Your task to perform on an android device: turn on location history Image 0: 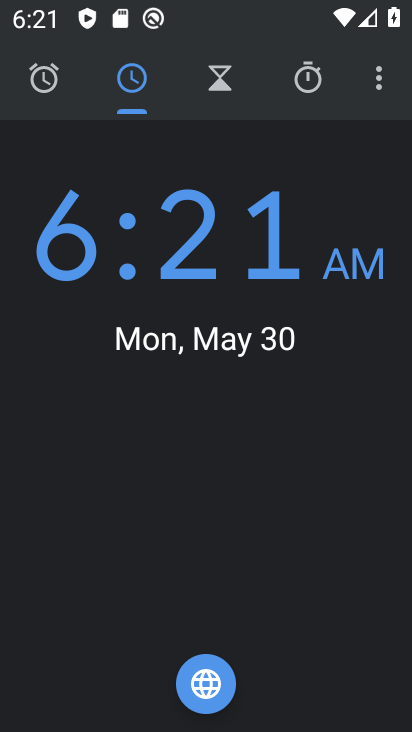
Step 0: press home button
Your task to perform on an android device: turn on location history Image 1: 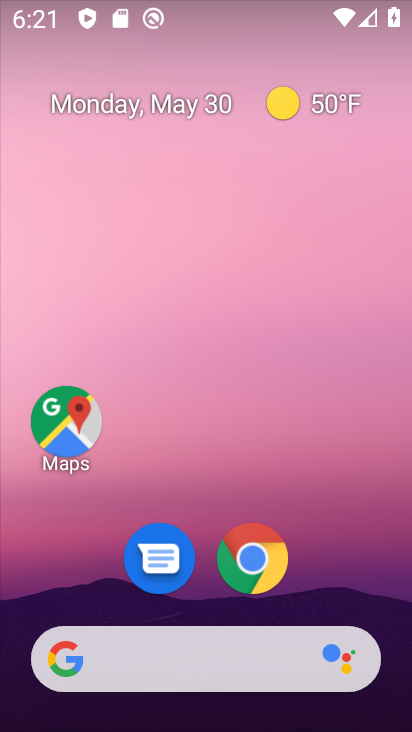
Step 1: drag from (300, 486) to (312, 54)
Your task to perform on an android device: turn on location history Image 2: 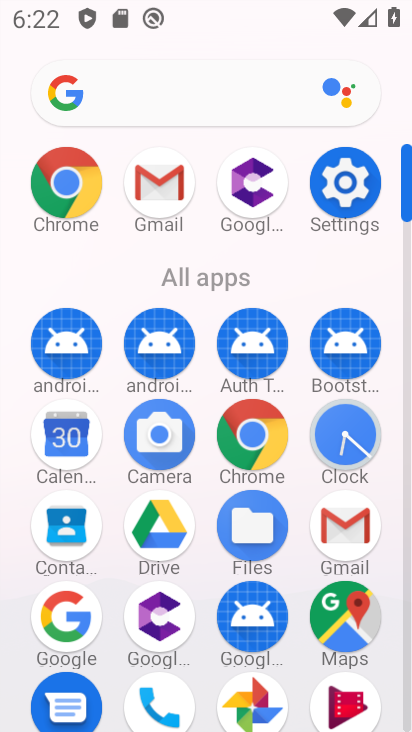
Step 2: click (341, 181)
Your task to perform on an android device: turn on location history Image 3: 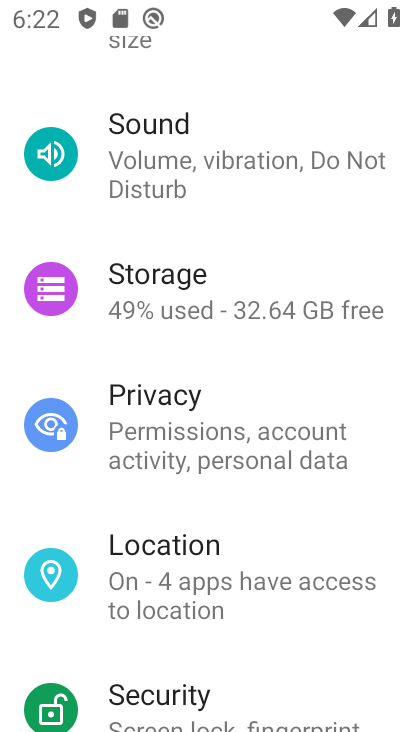
Step 3: drag from (224, 597) to (213, 334)
Your task to perform on an android device: turn on location history Image 4: 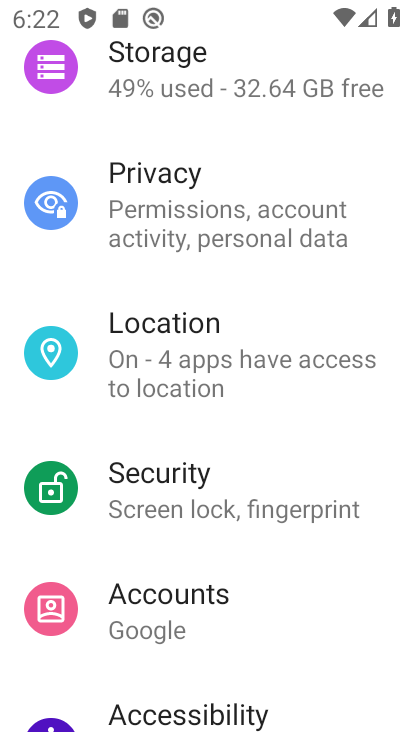
Step 4: press home button
Your task to perform on an android device: turn on location history Image 5: 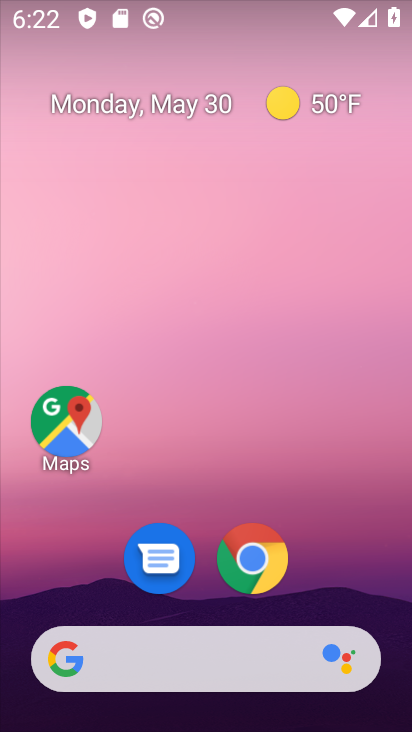
Step 5: drag from (324, 535) to (261, 126)
Your task to perform on an android device: turn on location history Image 6: 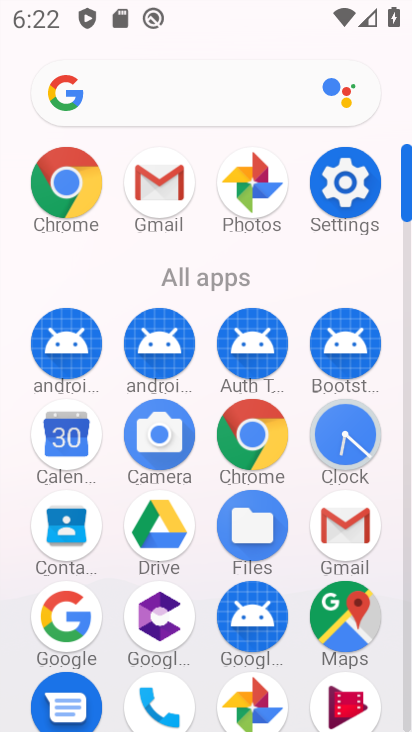
Step 6: drag from (184, 284) to (188, 0)
Your task to perform on an android device: turn on location history Image 7: 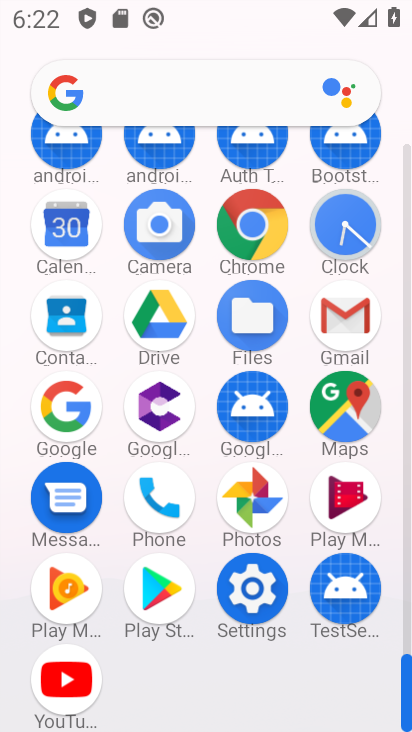
Step 7: click (338, 402)
Your task to perform on an android device: turn on location history Image 8: 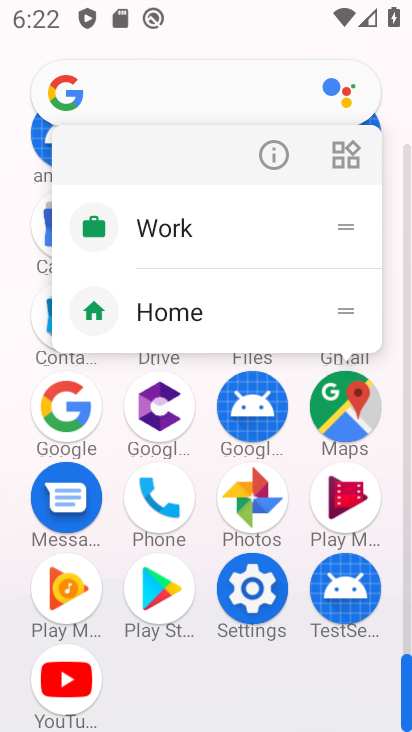
Step 8: click (238, 31)
Your task to perform on an android device: turn on location history Image 9: 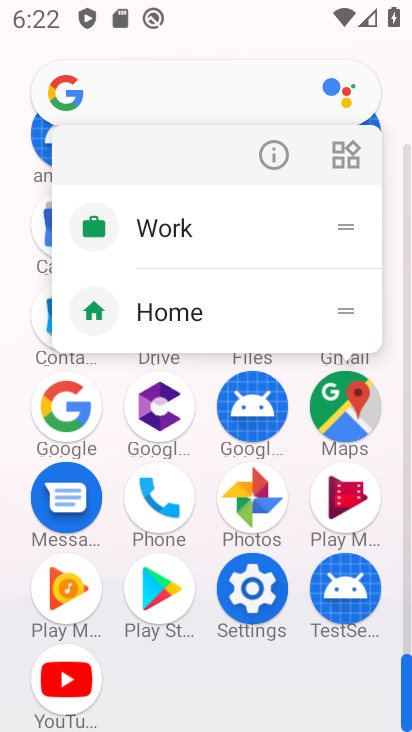
Step 9: click (267, 650)
Your task to perform on an android device: turn on location history Image 10: 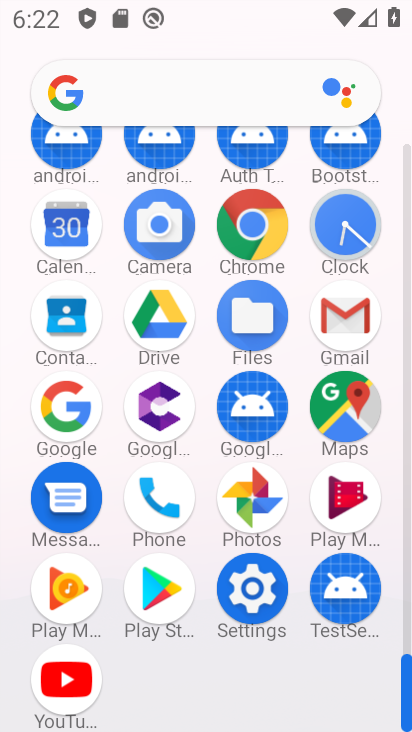
Step 10: click (327, 422)
Your task to perform on an android device: turn on location history Image 11: 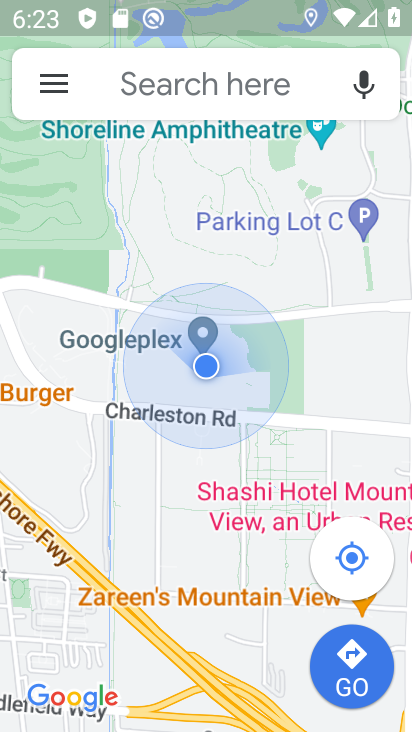
Step 11: drag from (313, 729) to (229, 717)
Your task to perform on an android device: turn on location history Image 12: 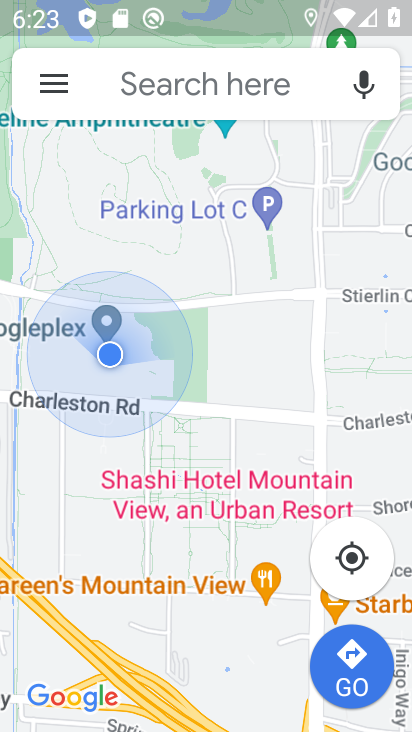
Step 12: click (30, 87)
Your task to perform on an android device: turn on location history Image 13: 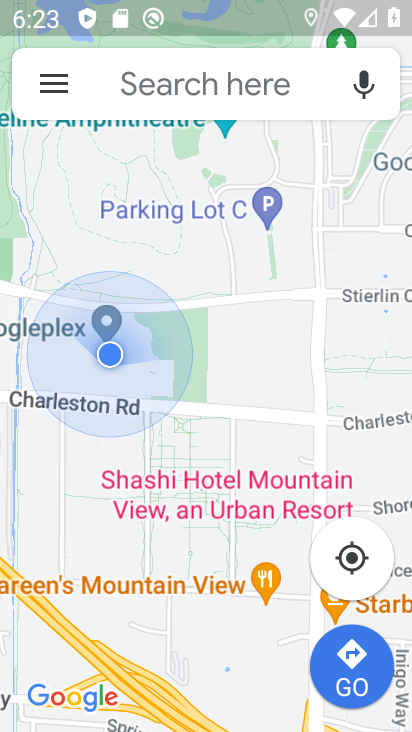
Step 13: click (53, 85)
Your task to perform on an android device: turn on location history Image 14: 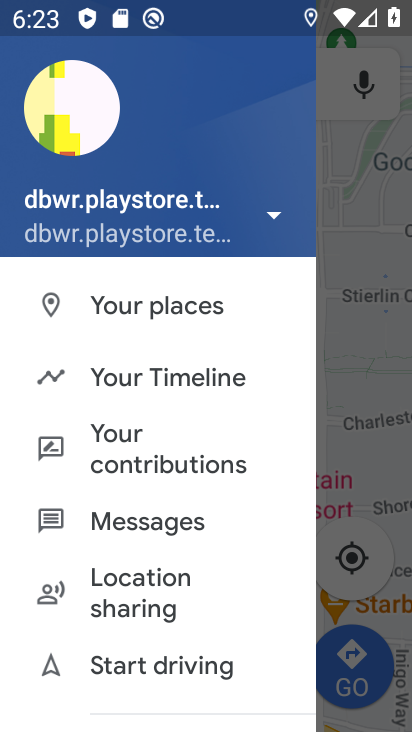
Step 14: click (102, 372)
Your task to perform on an android device: turn on location history Image 15: 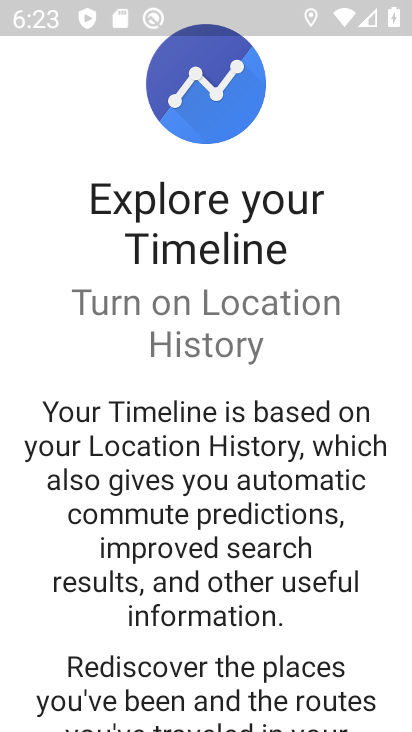
Step 15: drag from (219, 532) to (237, 125)
Your task to perform on an android device: turn on location history Image 16: 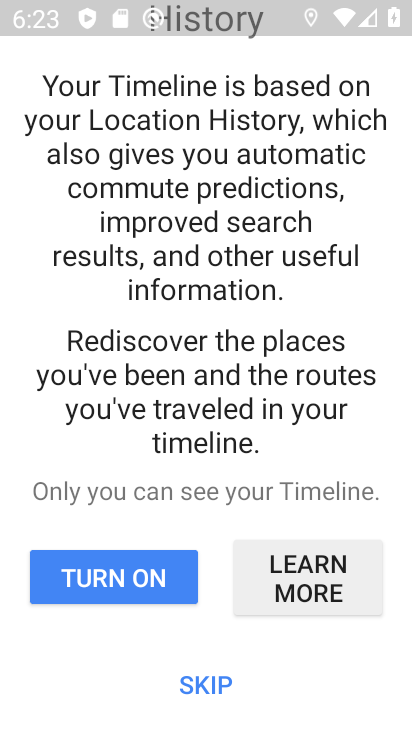
Step 16: click (90, 572)
Your task to perform on an android device: turn on location history Image 17: 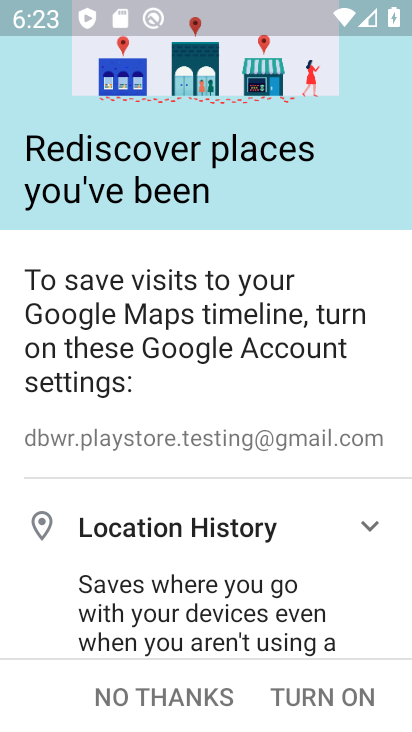
Step 17: drag from (270, 542) to (241, 298)
Your task to perform on an android device: turn on location history Image 18: 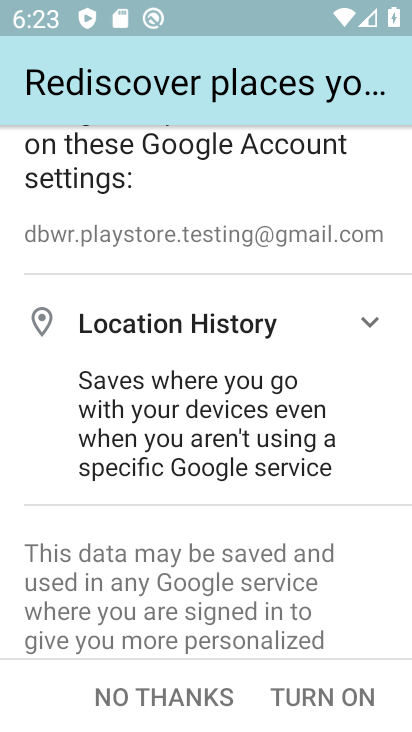
Step 18: click (175, 694)
Your task to perform on an android device: turn on location history Image 19: 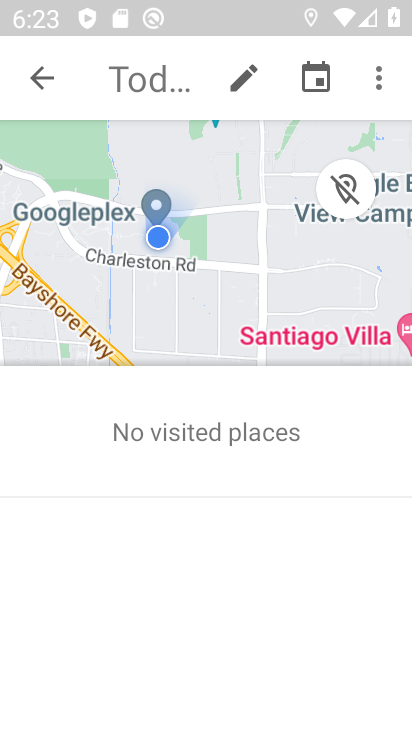
Step 19: click (378, 74)
Your task to perform on an android device: turn on location history Image 20: 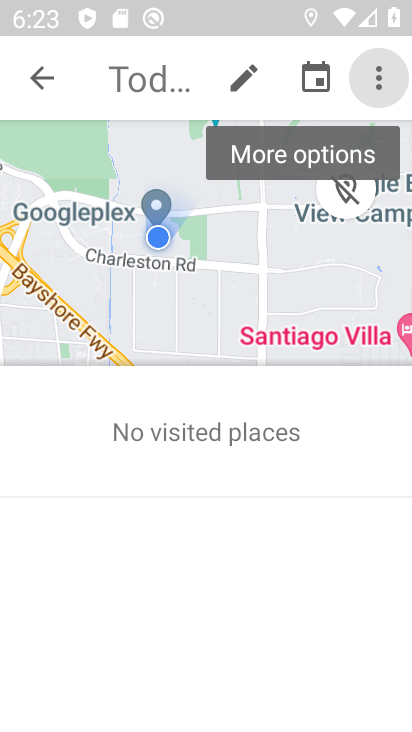
Step 20: click (378, 74)
Your task to perform on an android device: turn on location history Image 21: 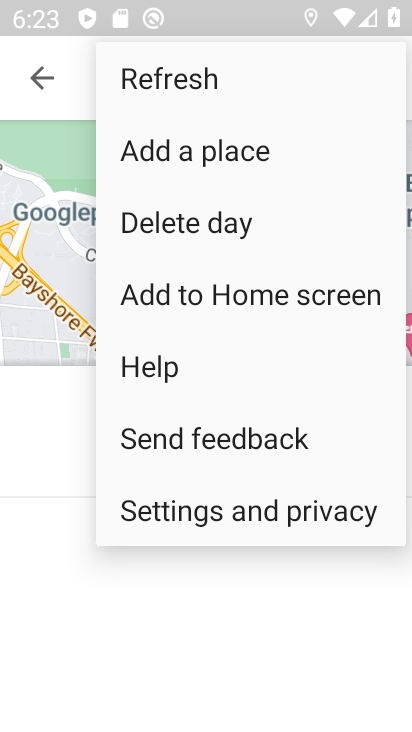
Step 21: click (280, 510)
Your task to perform on an android device: turn on location history Image 22: 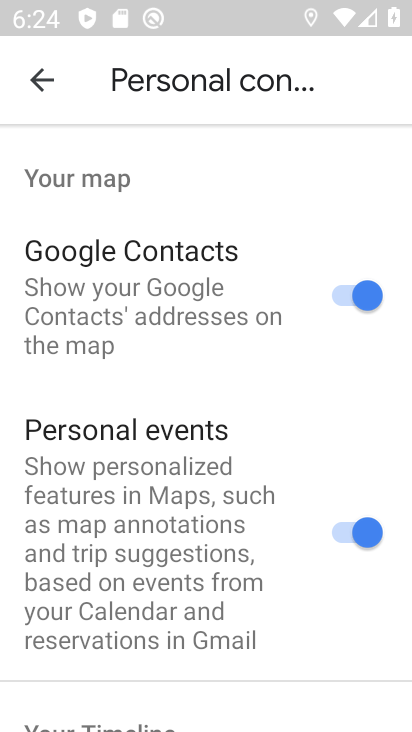
Step 22: drag from (280, 468) to (263, 181)
Your task to perform on an android device: turn on location history Image 23: 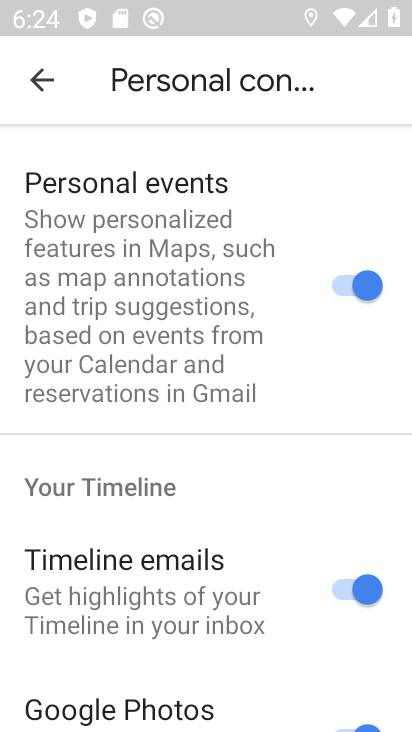
Step 23: drag from (296, 538) to (256, 237)
Your task to perform on an android device: turn on location history Image 24: 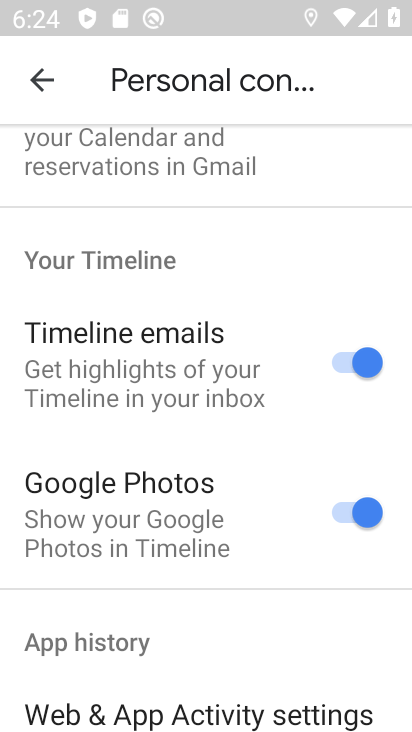
Step 24: drag from (213, 616) to (193, 171)
Your task to perform on an android device: turn on location history Image 25: 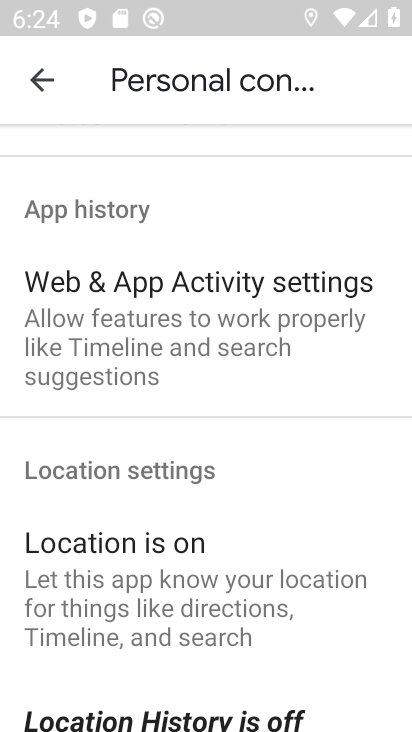
Step 25: drag from (329, 603) to (223, 182)
Your task to perform on an android device: turn on location history Image 26: 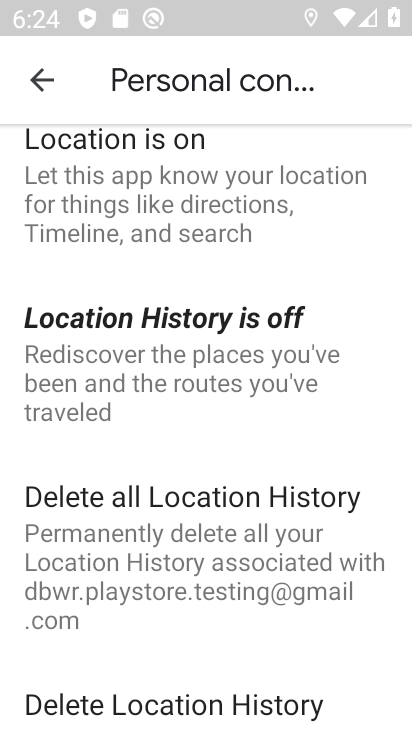
Step 26: click (171, 345)
Your task to perform on an android device: turn on location history Image 27: 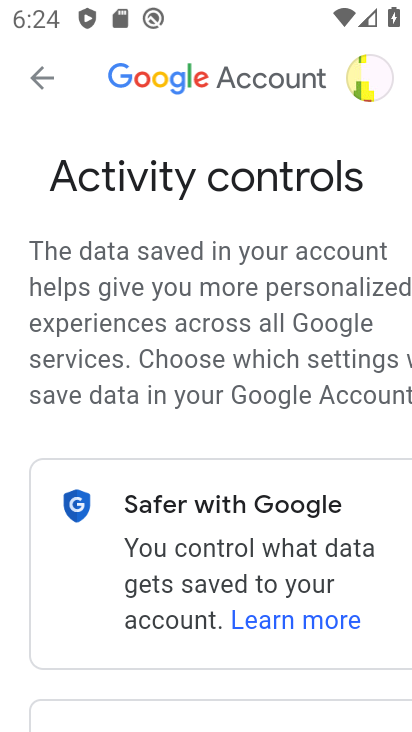
Step 27: drag from (103, 602) to (109, 197)
Your task to perform on an android device: turn on location history Image 28: 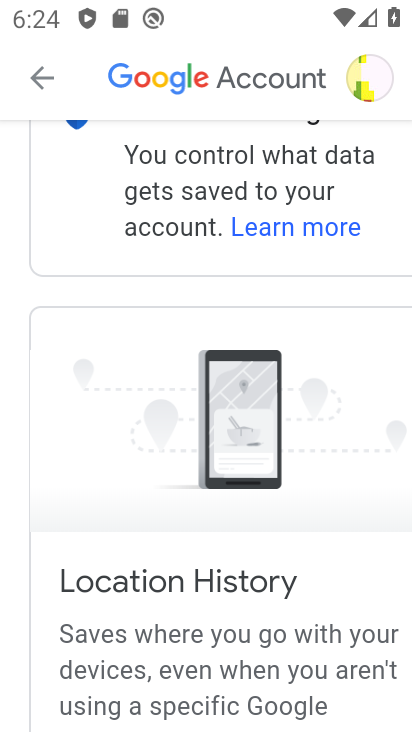
Step 28: drag from (147, 639) to (200, 79)
Your task to perform on an android device: turn on location history Image 29: 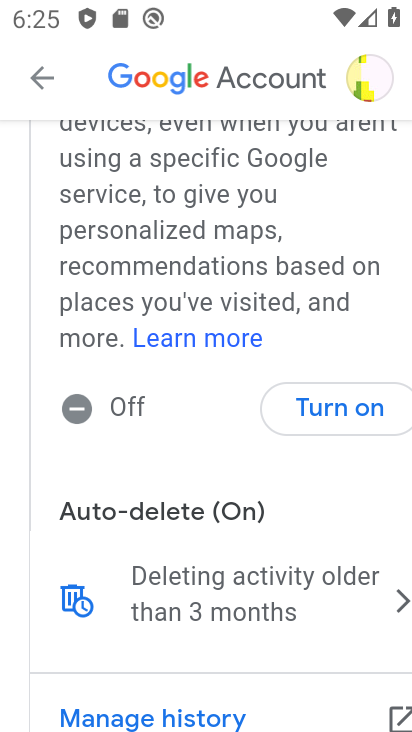
Step 29: click (344, 402)
Your task to perform on an android device: turn on location history Image 30: 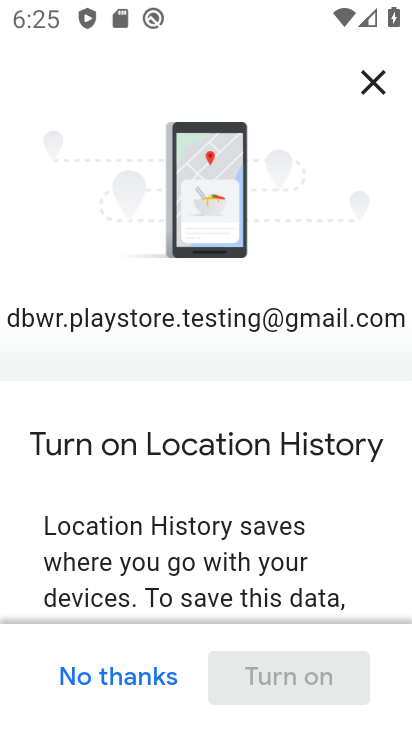
Step 30: drag from (300, 546) to (287, 146)
Your task to perform on an android device: turn on location history Image 31: 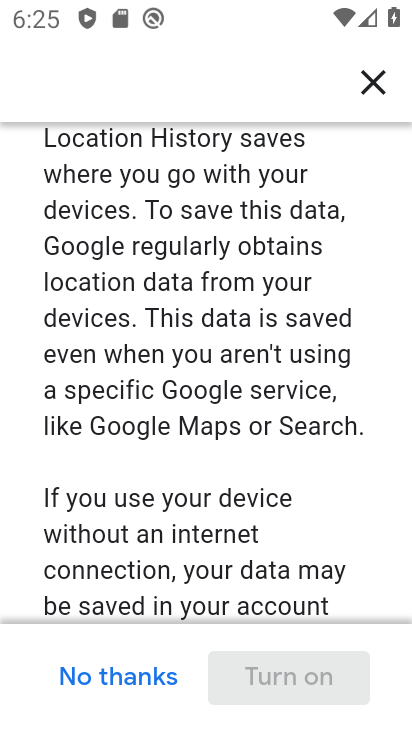
Step 31: drag from (249, 583) to (272, 161)
Your task to perform on an android device: turn on location history Image 32: 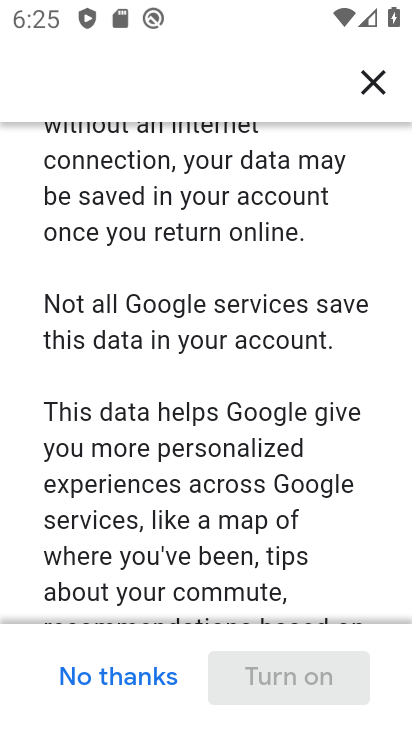
Step 32: drag from (178, 537) to (196, 146)
Your task to perform on an android device: turn on location history Image 33: 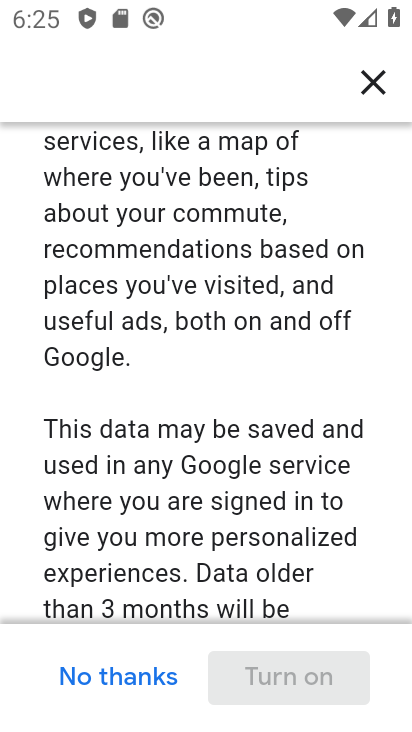
Step 33: drag from (127, 567) to (132, 158)
Your task to perform on an android device: turn on location history Image 34: 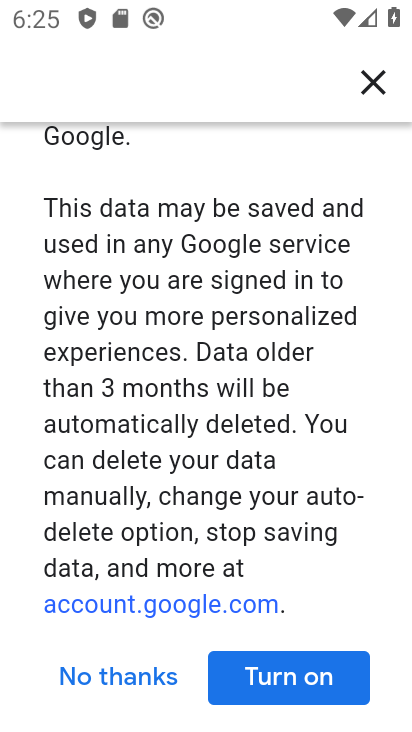
Step 34: click (319, 674)
Your task to perform on an android device: turn on location history Image 35: 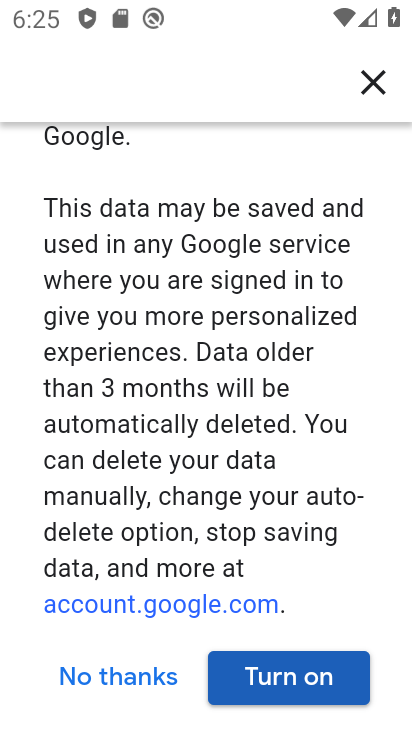
Step 35: click (319, 674)
Your task to perform on an android device: turn on location history Image 36: 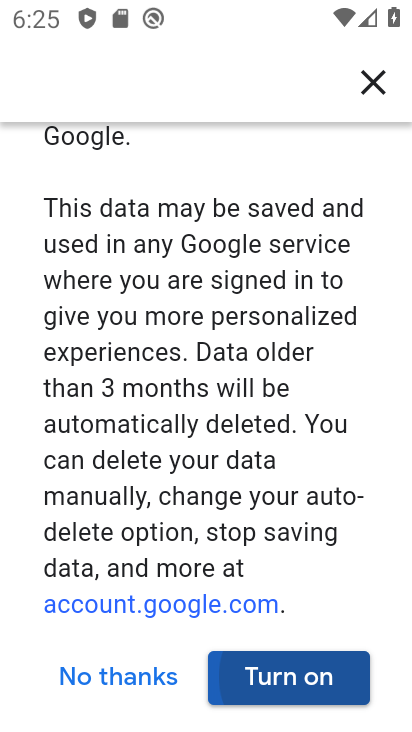
Step 36: click (319, 674)
Your task to perform on an android device: turn on location history Image 37: 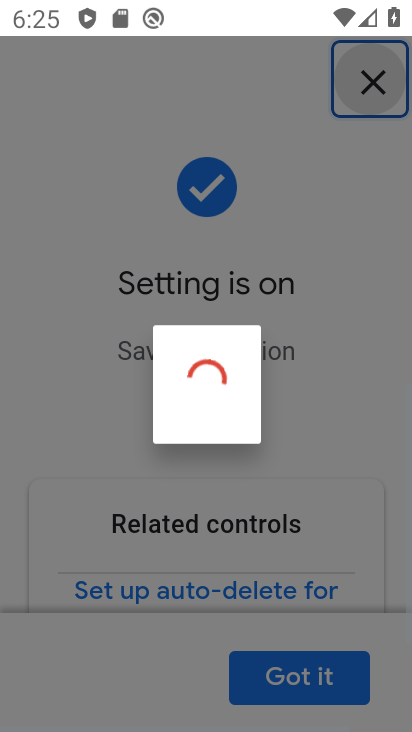
Step 37: click (319, 674)
Your task to perform on an android device: turn on location history Image 38: 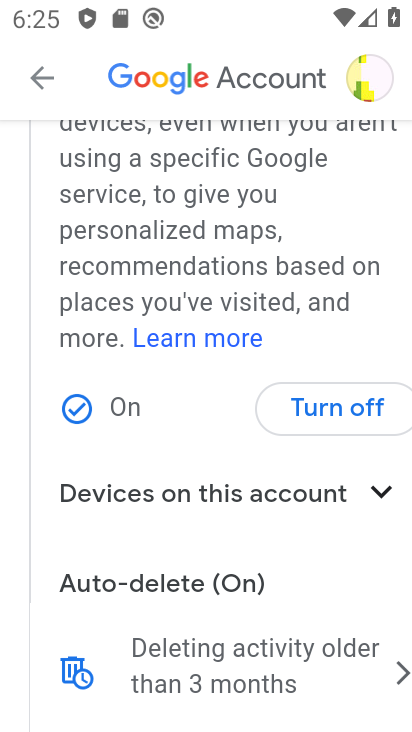
Step 38: task complete